Your task to perform on an android device: Go to privacy settings Image 0: 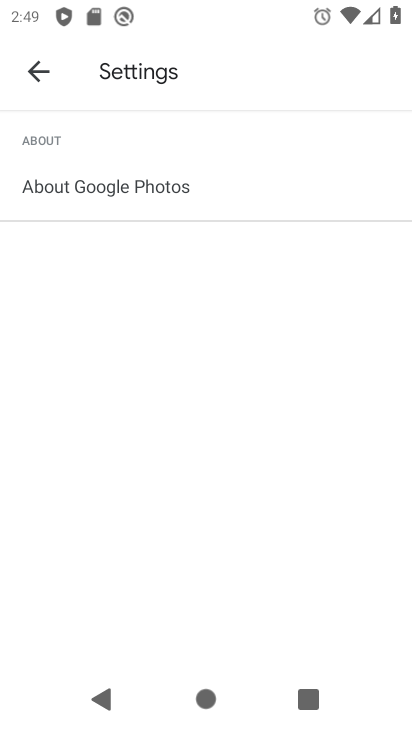
Step 0: press home button
Your task to perform on an android device: Go to privacy settings Image 1: 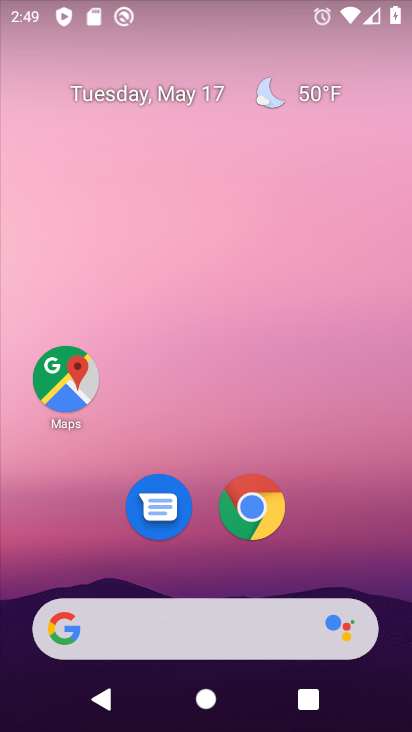
Step 1: drag from (347, 540) to (198, 22)
Your task to perform on an android device: Go to privacy settings Image 2: 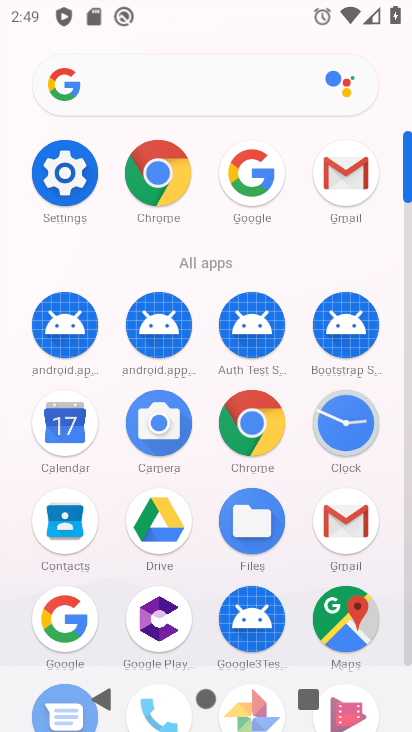
Step 2: click (55, 193)
Your task to perform on an android device: Go to privacy settings Image 3: 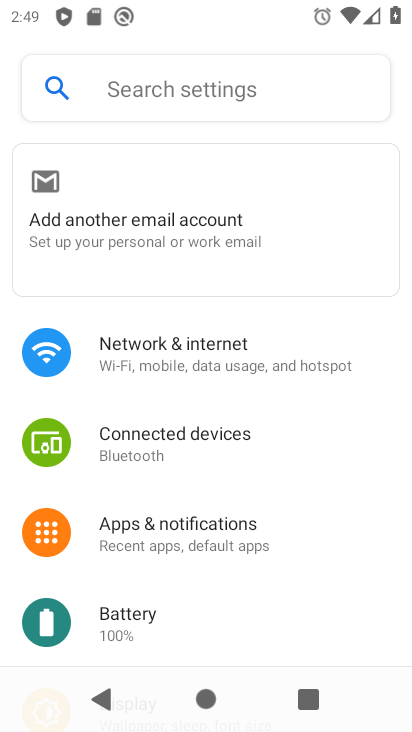
Step 3: drag from (241, 515) to (221, 124)
Your task to perform on an android device: Go to privacy settings Image 4: 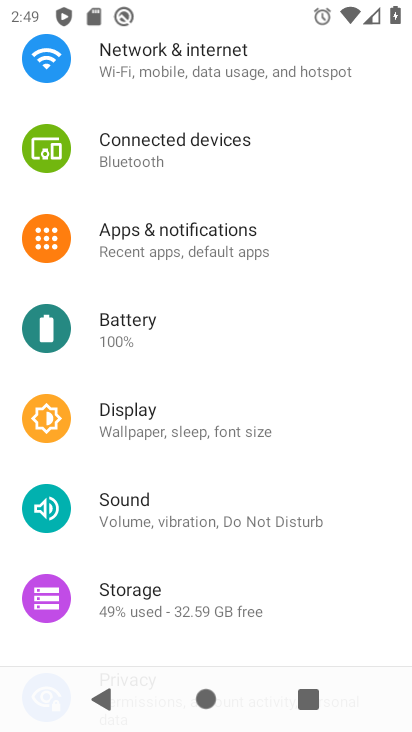
Step 4: drag from (213, 546) to (209, 190)
Your task to perform on an android device: Go to privacy settings Image 5: 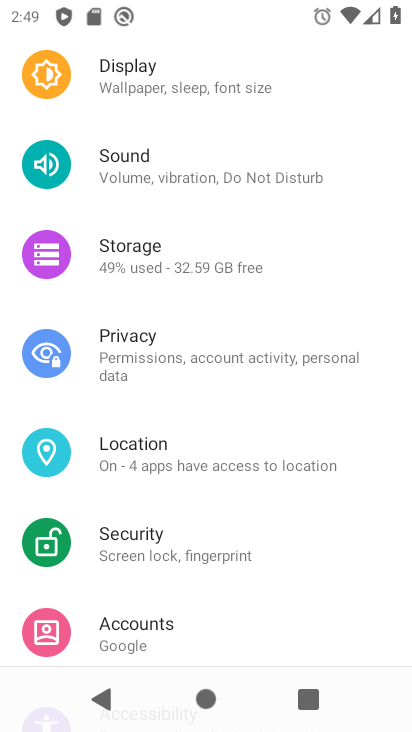
Step 5: click (167, 345)
Your task to perform on an android device: Go to privacy settings Image 6: 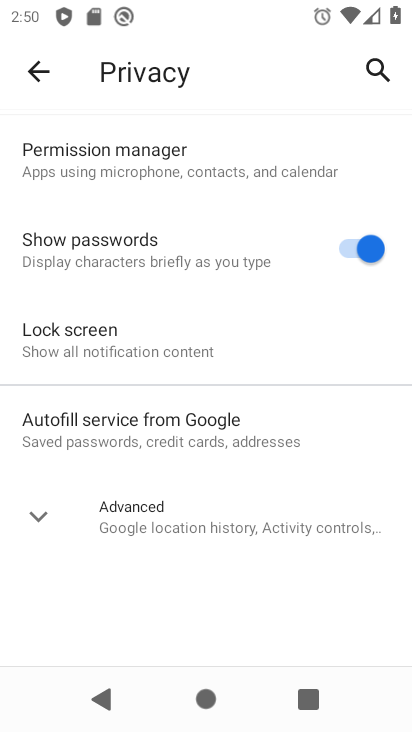
Step 6: task complete